Your task to perform on an android device: clear all cookies in the chrome app Image 0: 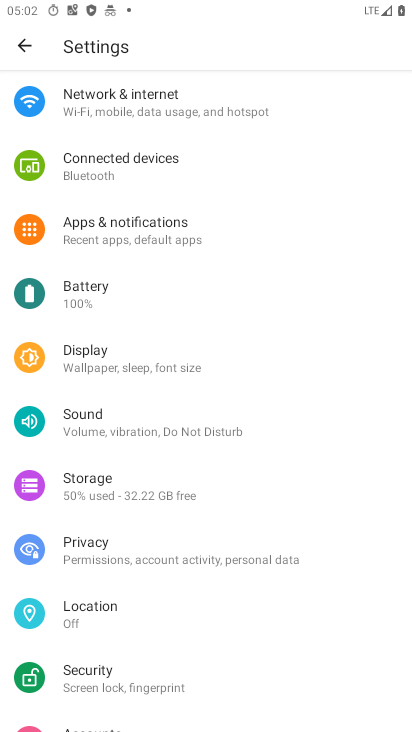
Step 0: press home button
Your task to perform on an android device: clear all cookies in the chrome app Image 1: 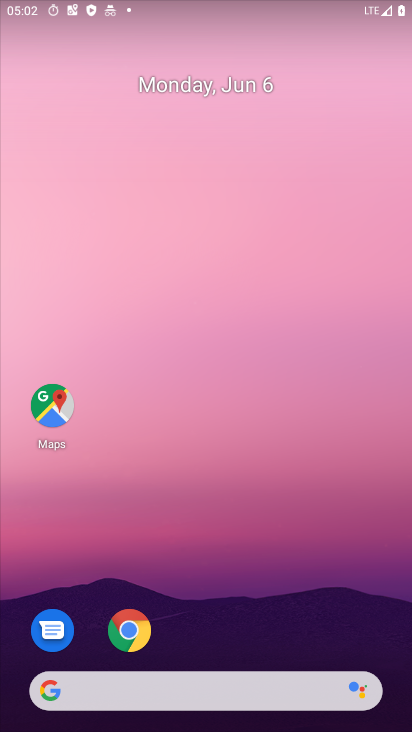
Step 1: drag from (242, 612) to (357, 8)
Your task to perform on an android device: clear all cookies in the chrome app Image 2: 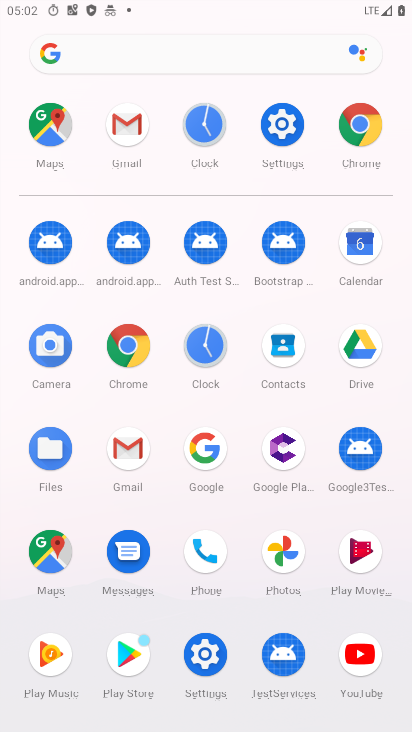
Step 2: click (356, 120)
Your task to perform on an android device: clear all cookies in the chrome app Image 3: 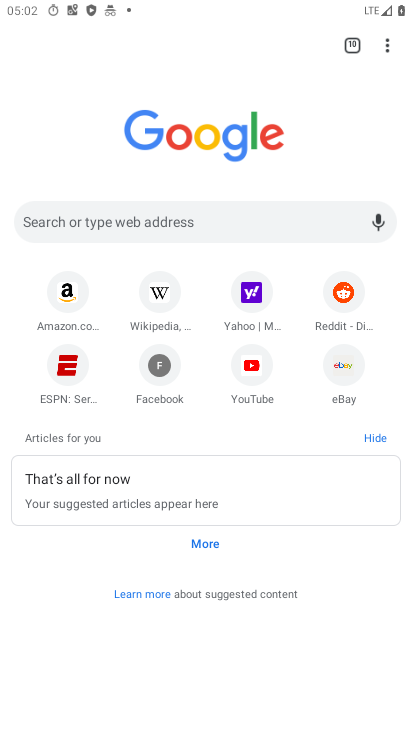
Step 3: drag from (386, 43) to (248, 392)
Your task to perform on an android device: clear all cookies in the chrome app Image 4: 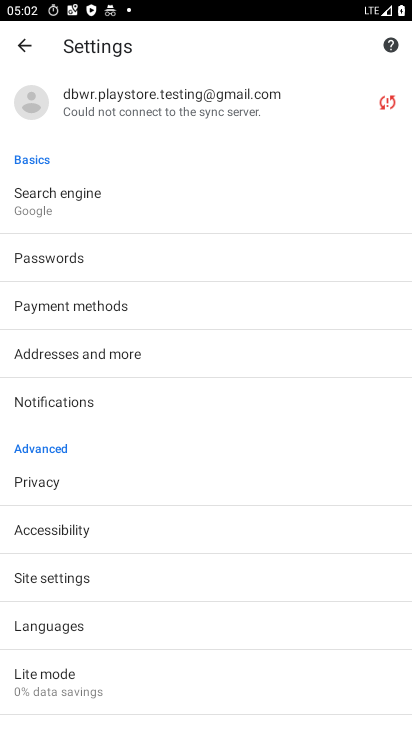
Step 4: click (32, 478)
Your task to perform on an android device: clear all cookies in the chrome app Image 5: 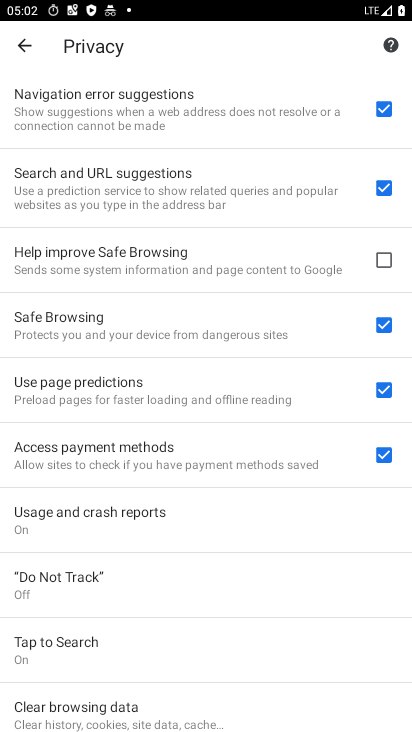
Step 5: drag from (283, 658) to (321, 265)
Your task to perform on an android device: clear all cookies in the chrome app Image 6: 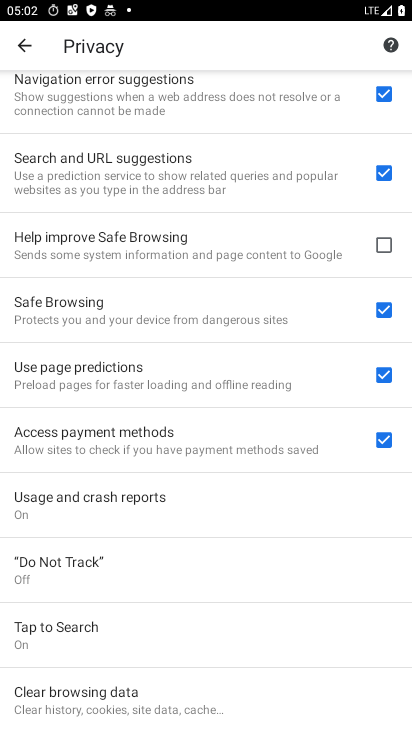
Step 6: click (120, 706)
Your task to perform on an android device: clear all cookies in the chrome app Image 7: 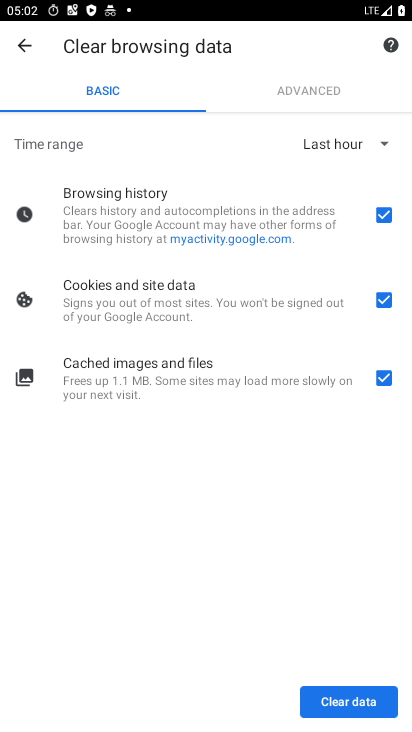
Step 7: click (368, 703)
Your task to perform on an android device: clear all cookies in the chrome app Image 8: 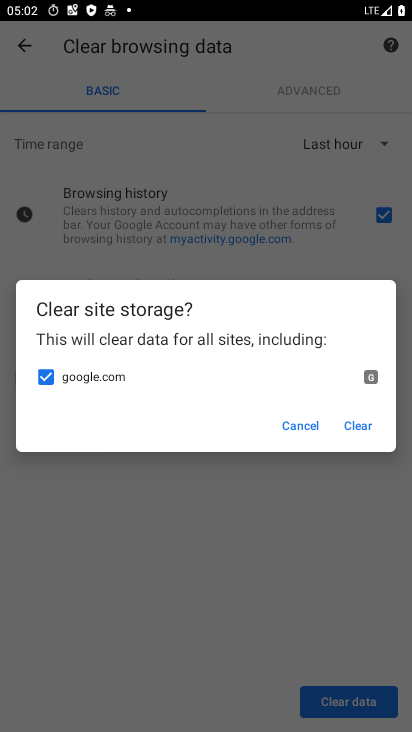
Step 8: click (358, 419)
Your task to perform on an android device: clear all cookies in the chrome app Image 9: 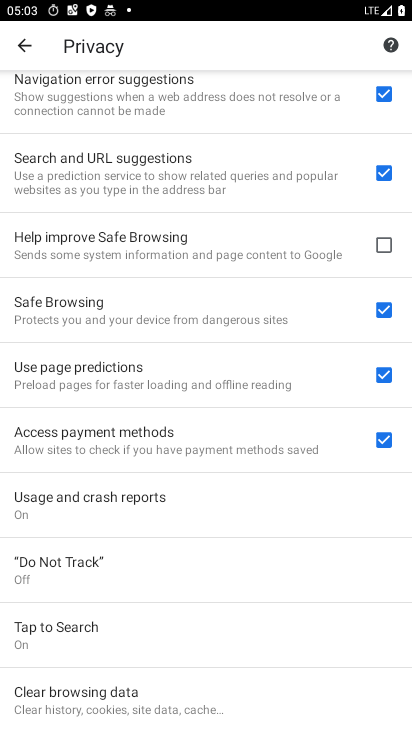
Step 9: task complete